Your task to perform on an android device: Go to accessibility settings Image 0: 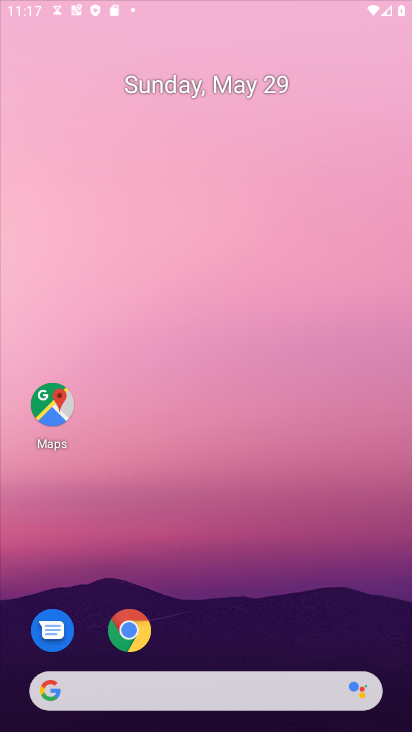
Step 0: drag from (211, 484) to (204, 65)
Your task to perform on an android device: Go to accessibility settings Image 1: 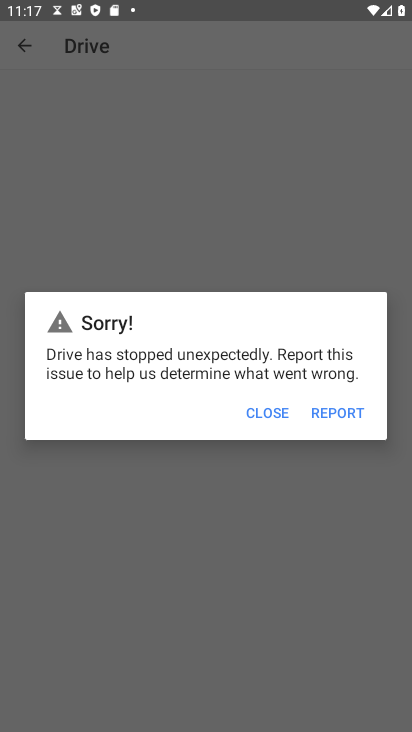
Step 1: press home button
Your task to perform on an android device: Go to accessibility settings Image 2: 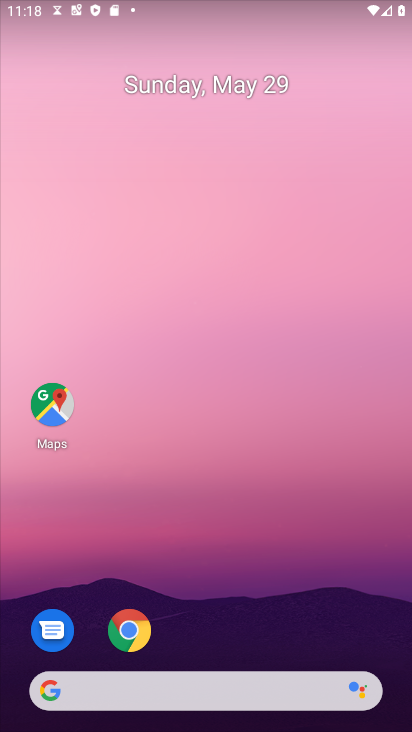
Step 2: drag from (282, 528) to (263, 262)
Your task to perform on an android device: Go to accessibility settings Image 3: 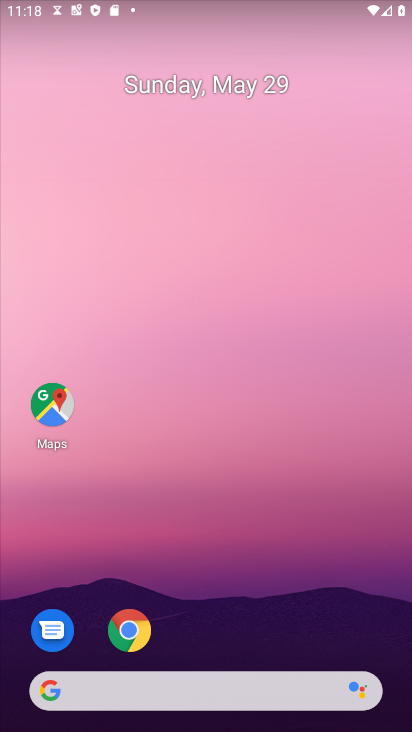
Step 3: drag from (270, 584) to (198, 2)
Your task to perform on an android device: Go to accessibility settings Image 4: 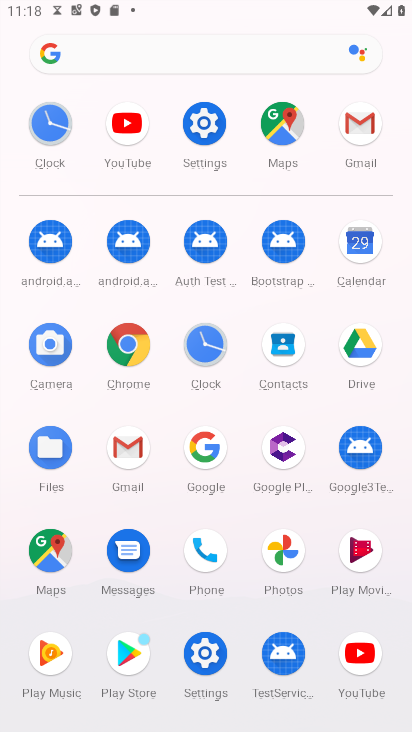
Step 4: click (205, 128)
Your task to perform on an android device: Go to accessibility settings Image 5: 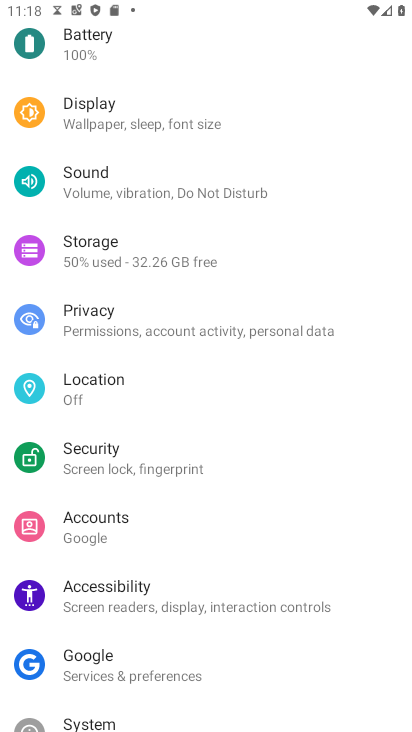
Step 5: click (119, 572)
Your task to perform on an android device: Go to accessibility settings Image 6: 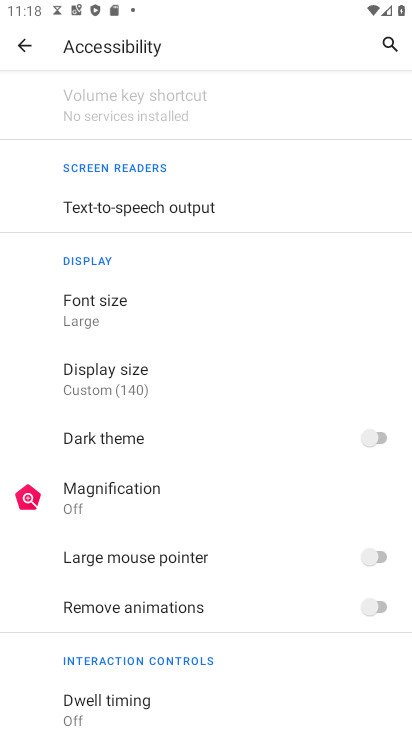
Step 6: task complete